Your task to perform on an android device: Open accessibility settings Image 0: 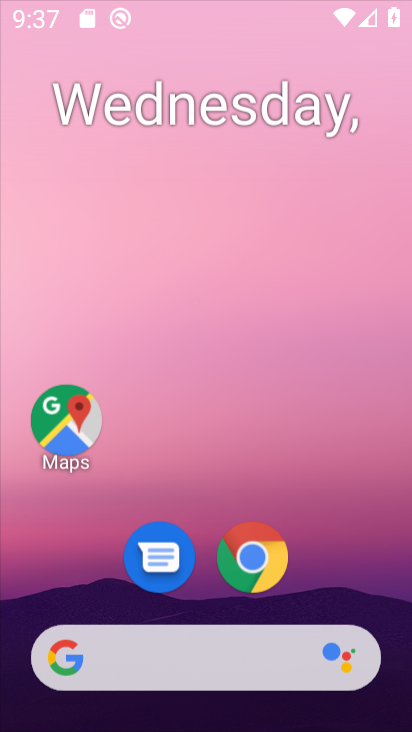
Step 0: click (368, 270)
Your task to perform on an android device: Open accessibility settings Image 1: 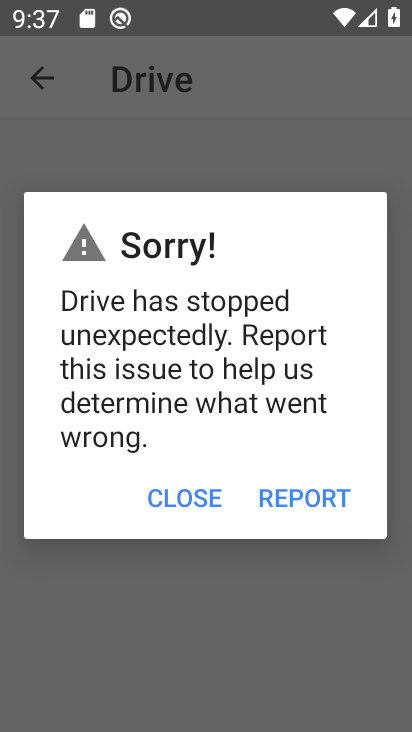
Step 1: press home button
Your task to perform on an android device: Open accessibility settings Image 2: 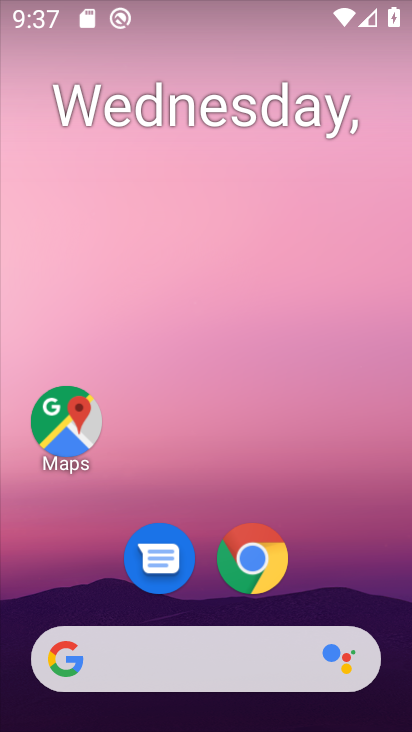
Step 2: drag from (352, 554) to (399, 81)
Your task to perform on an android device: Open accessibility settings Image 3: 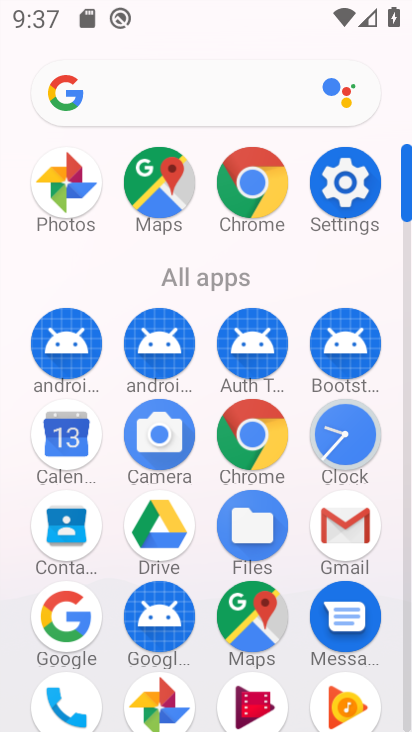
Step 3: click (359, 196)
Your task to perform on an android device: Open accessibility settings Image 4: 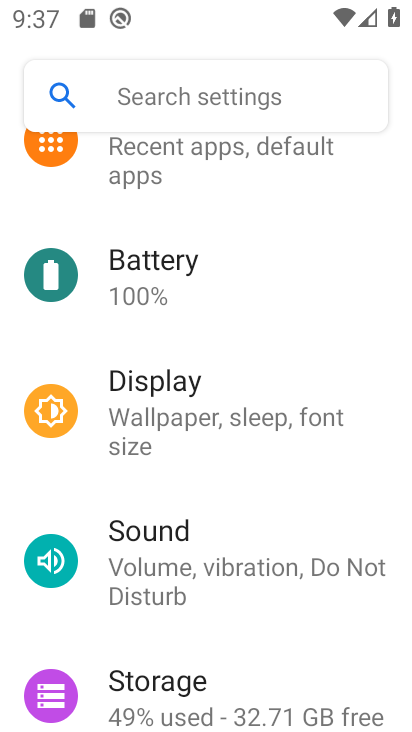
Step 4: drag from (359, 196) to (359, 329)
Your task to perform on an android device: Open accessibility settings Image 5: 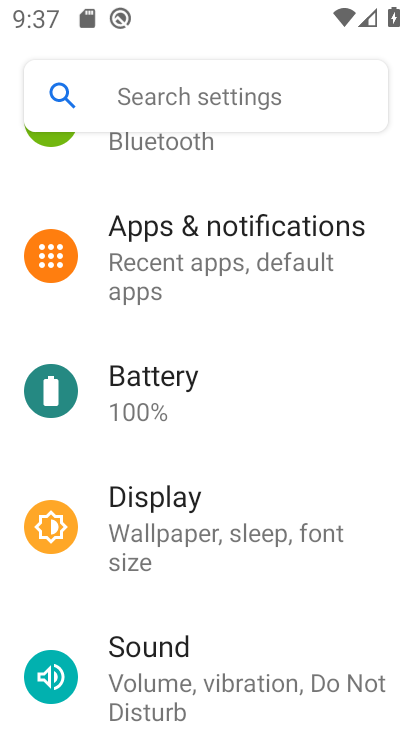
Step 5: drag from (367, 180) to (365, 328)
Your task to perform on an android device: Open accessibility settings Image 6: 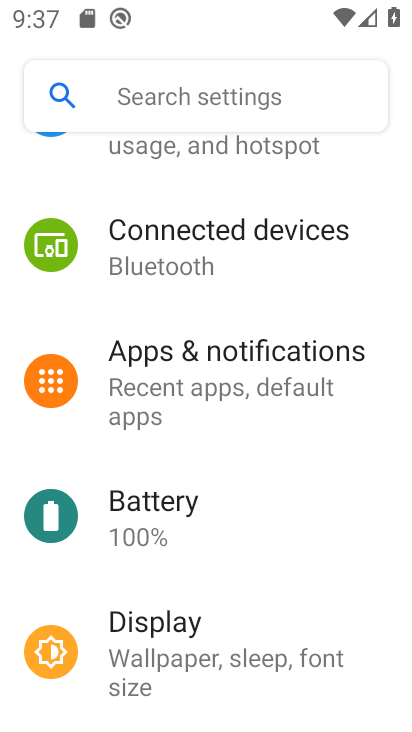
Step 6: drag from (373, 201) to (366, 318)
Your task to perform on an android device: Open accessibility settings Image 7: 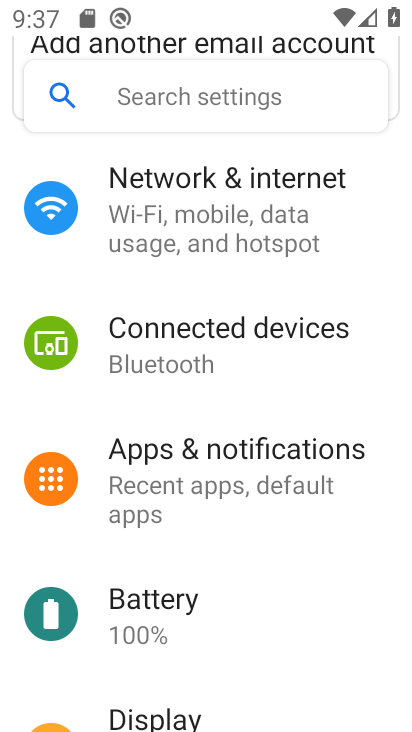
Step 7: drag from (373, 198) to (369, 317)
Your task to perform on an android device: Open accessibility settings Image 8: 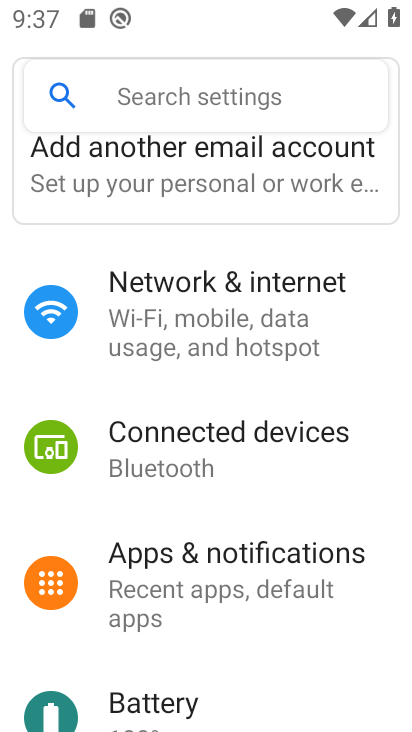
Step 8: drag from (370, 464) to (364, 372)
Your task to perform on an android device: Open accessibility settings Image 9: 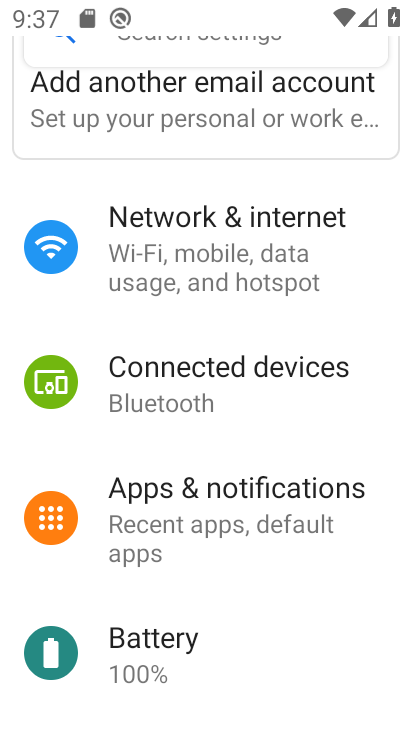
Step 9: drag from (377, 542) to (371, 410)
Your task to perform on an android device: Open accessibility settings Image 10: 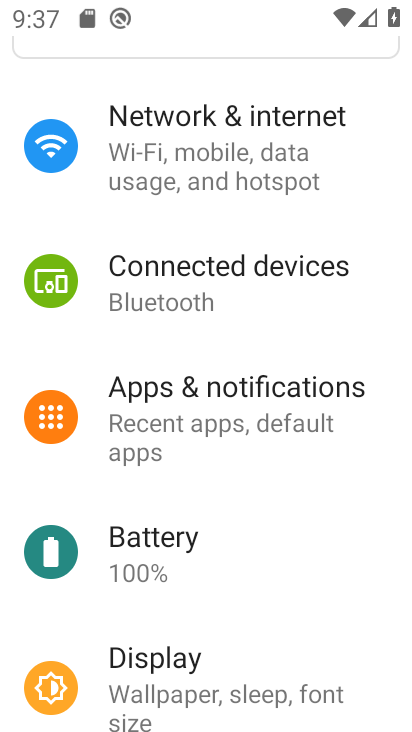
Step 10: drag from (365, 521) to (361, 415)
Your task to perform on an android device: Open accessibility settings Image 11: 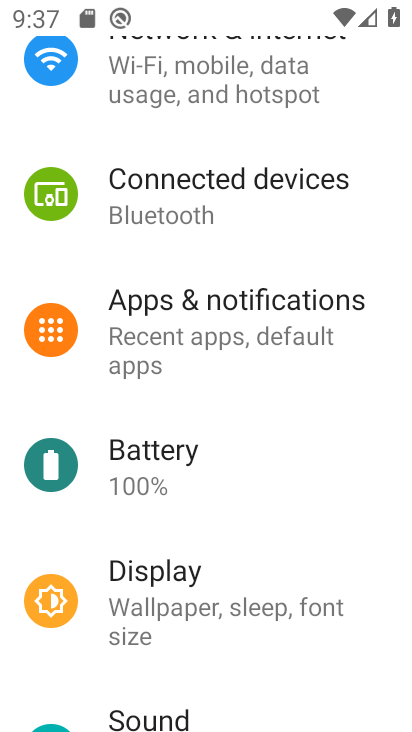
Step 11: drag from (360, 540) to (365, 412)
Your task to perform on an android device: Open accessibility settings Image 12: 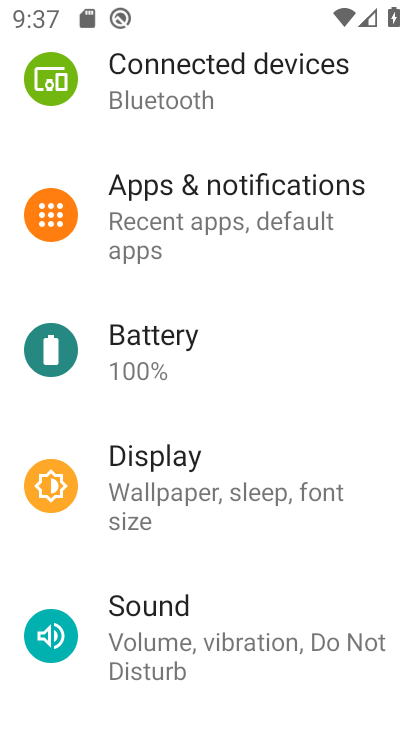
Step 12: drag from (371, 469) to (372, 362)
Your task to perform on an android device: Open accessibility settings Image 13: 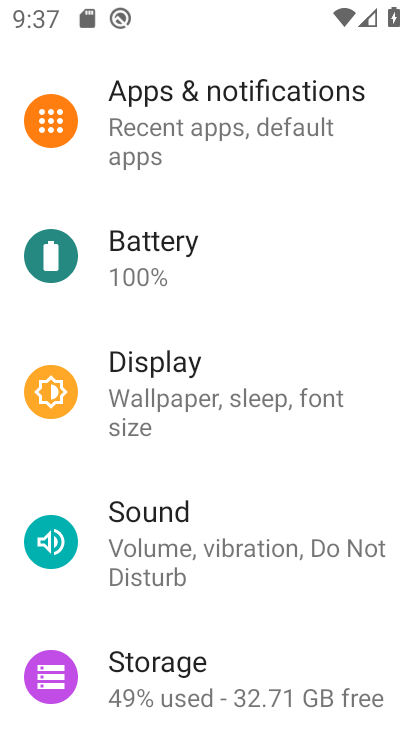
Step 13: drag from (370, 460) to (374, 364)
Your task to perform on an android device: Open accessibility settings Image 14: 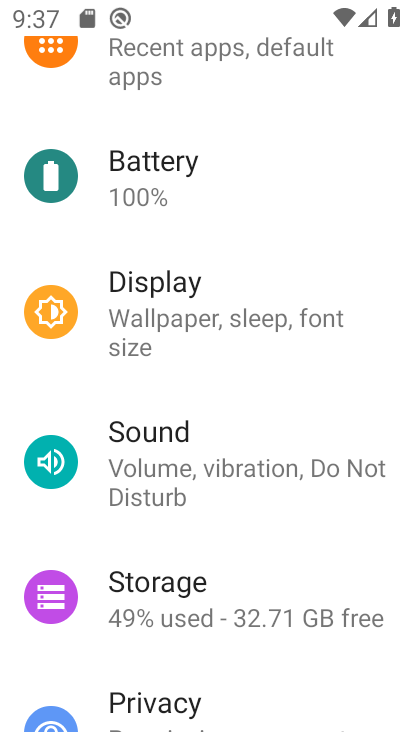
Step 14: drag from (365, 418) to (363, 307)
Your task to perform on an android device: Open accessibility settings Image 15: 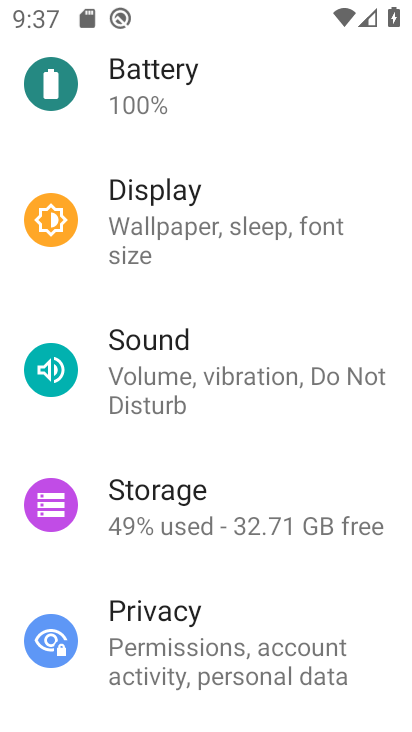
Step 15: drag from (363, 423) to (361, 323)
Your task to perform on an android device: Open accessibility settings Image 16: 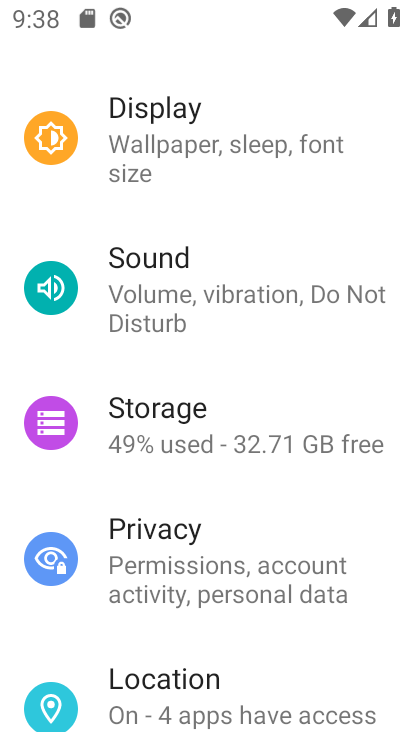
Step 16: drag from (359, 414) to (360, 307)
Your task to perform on an android device: Open accessibility settings Image 17: 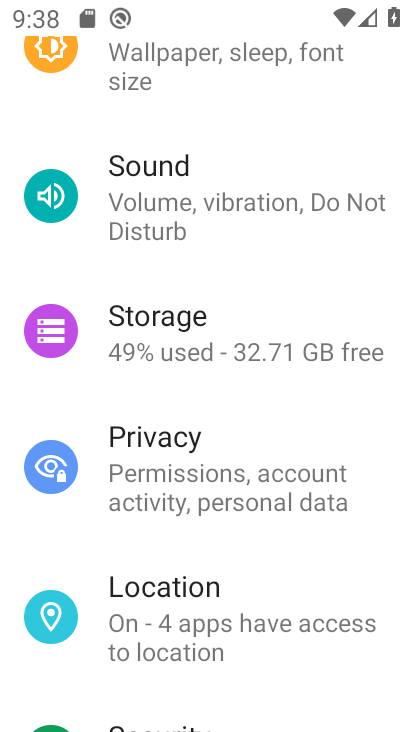
Step 17: drag from (363, 435) to (367, 315)
Your task to perform on an android device: Open accessibility settings Image 18: 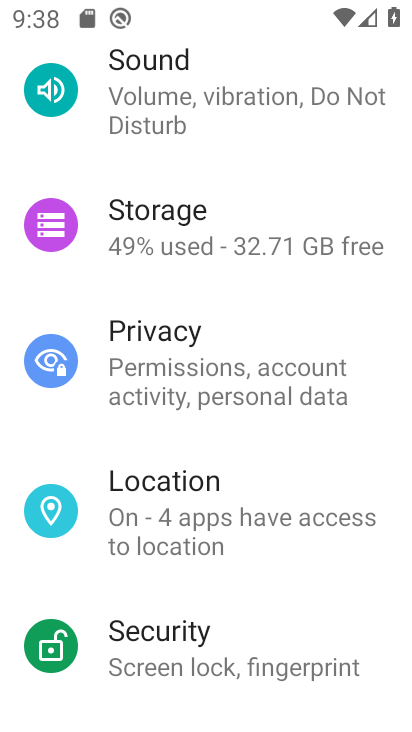
Step 18: drag from (368, 445) to (370, 331)
Your task to perform on an android device: Open accessibility settings Image 19: 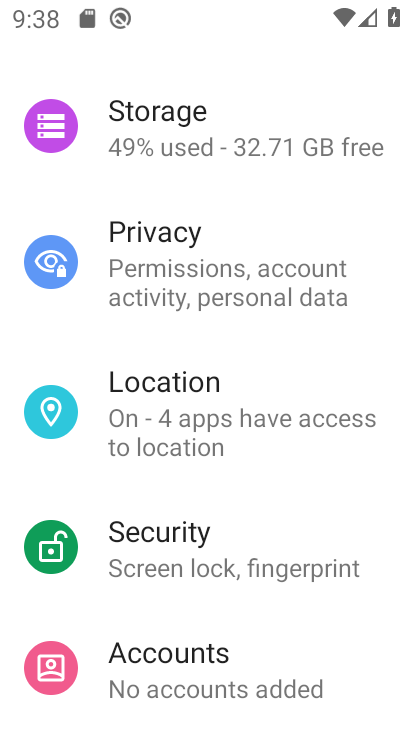
Step 19: drag from (370, 465) to (373, 341)
Your task to perform on an android device: Open accessibility settings Image 20: 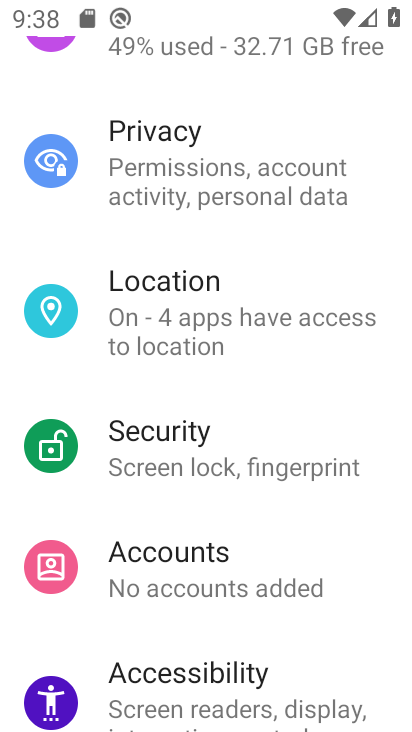
Step 20: drag from (376, 502) to (377, 386)
Your task to perform on an android device: Open accessibility settings Image 21: 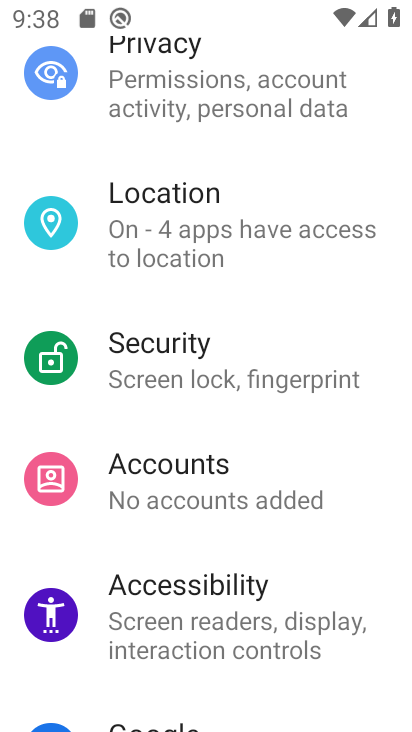
Step 21: drag from (367, 503) to (353, 325)
Your task to perform on an android device: Open accessibility settings Image 22: 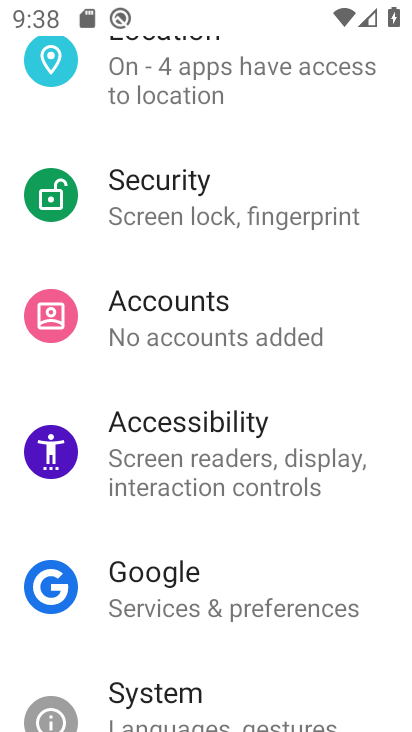
Step 22: click (286, 459)
Your task to perform on an android device: Open accessibility settings Image 23: 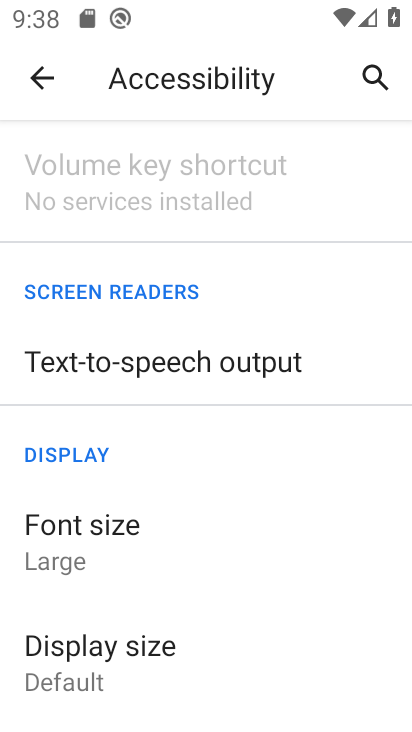
Step 23: task complete